Your task to perform on an android device: open a bookmark in the chrome app Image 0: 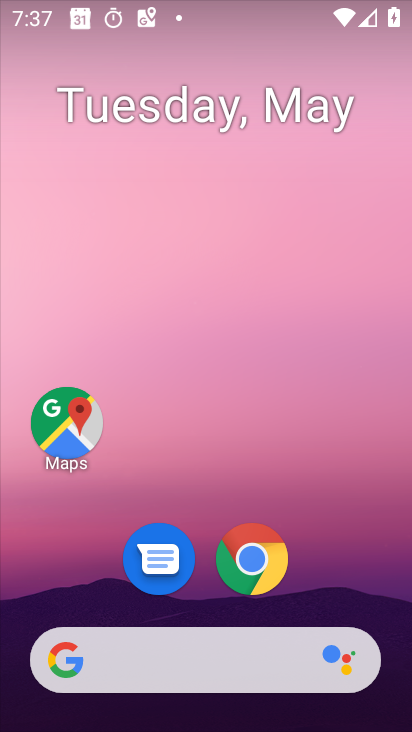
Step 0: drag from (395, 635) to (299, 107)
Your task to perform on an android device: open a bookmark in the chrome app Image 1: 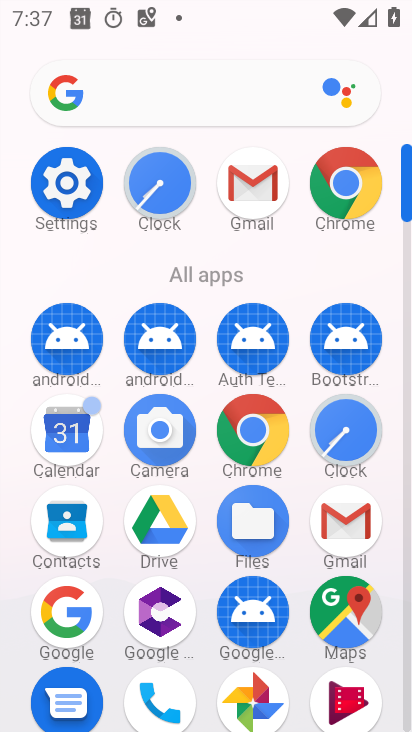
Step 1: click (353, 189)
Your task to perform on an android device: open a bookmark in the chrome app Image 2: 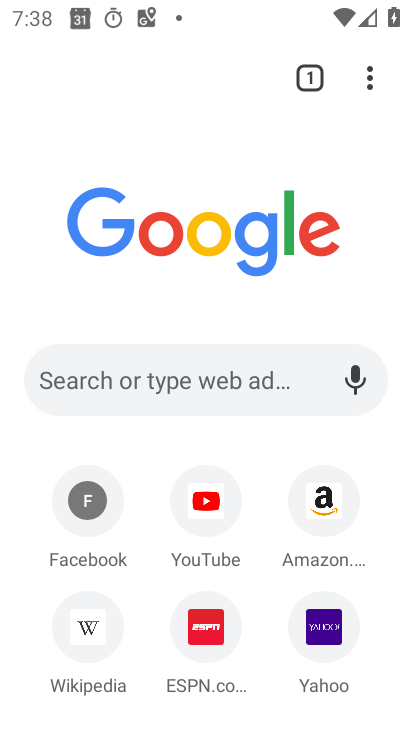
Step 2: click (372, 74)
Your task to perform on an android device: open a bookmark in the chrome app Image 3: 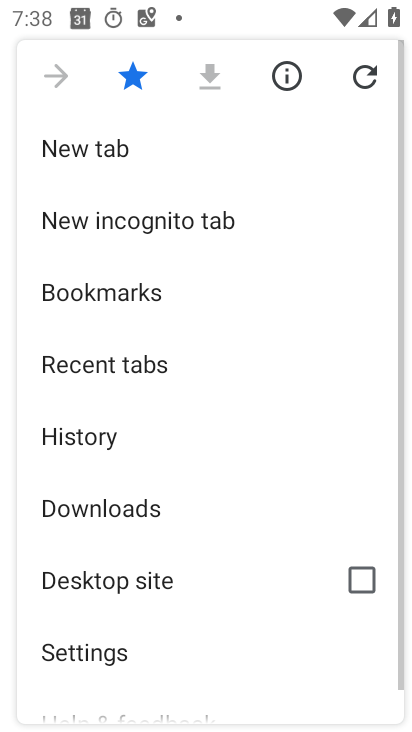
Step 3: click (152, 279)
Your task to perform on an android device: open a bookmark in the chrome app Image 4: 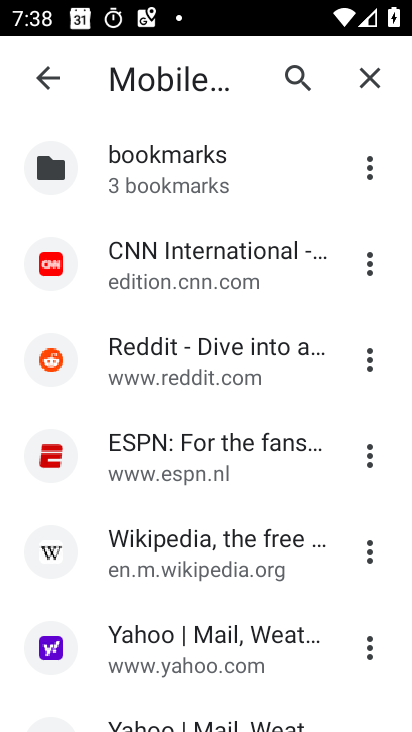
Step 4: task complete